Your task to perform on an android device: Open Amazon Image 0: 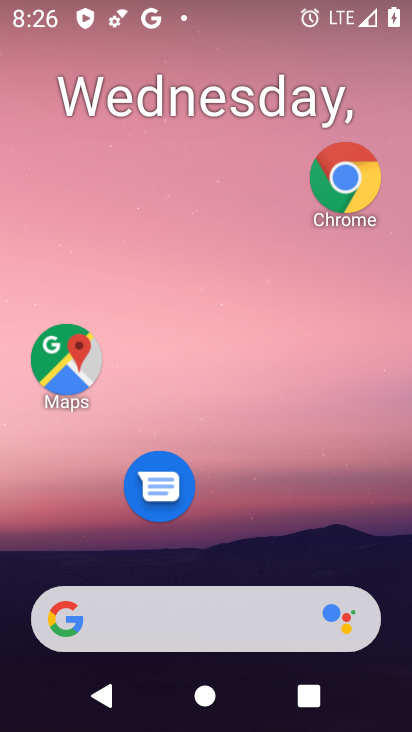
Step 0: drag from (185, 606) to (217, 99)
Your task to perform on an android device: Open Amazon Image 1: 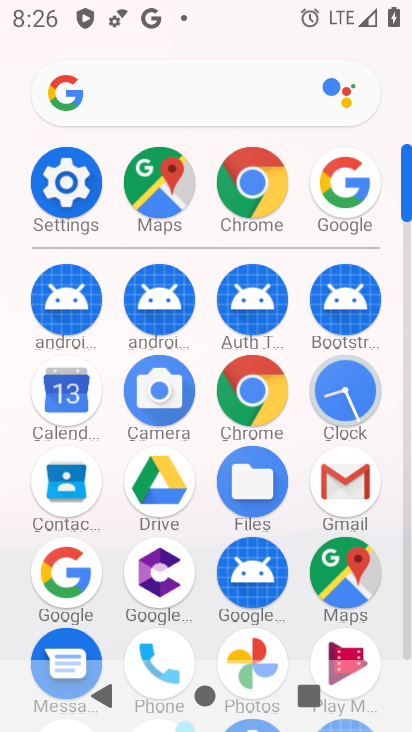
Step 1: drag from (255, 457) to (252, 282)
Your task to perform on an android device: Open Amazon Image 2: 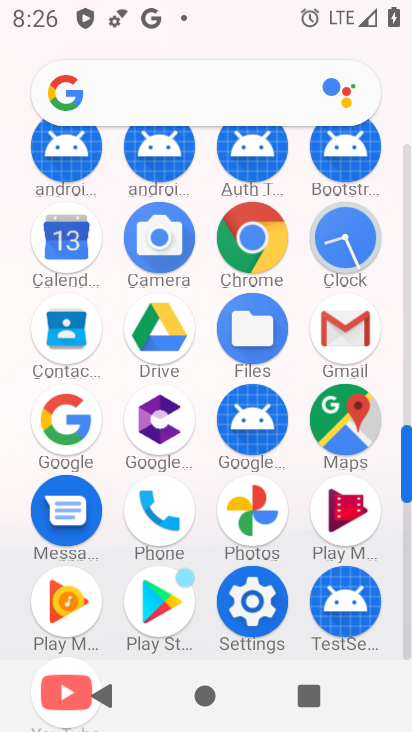
Step 2: drag from (210, 501) to (209, 406)
Your task to perform on an android device: Open Amazon Image 3: 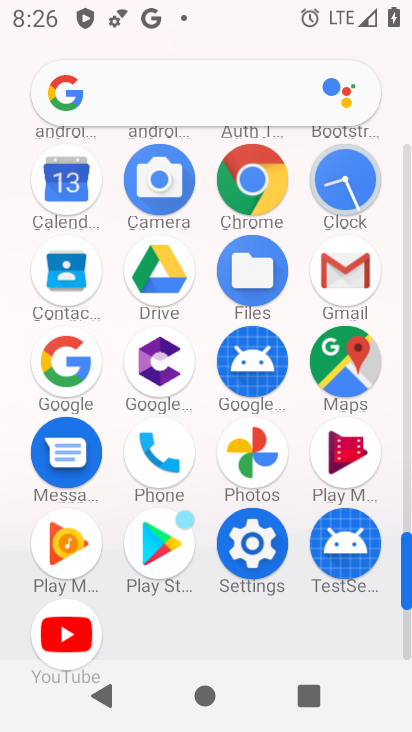
Step 3: click (254, 217)
Your task to perform on an android device: Open Amazon Image 4: 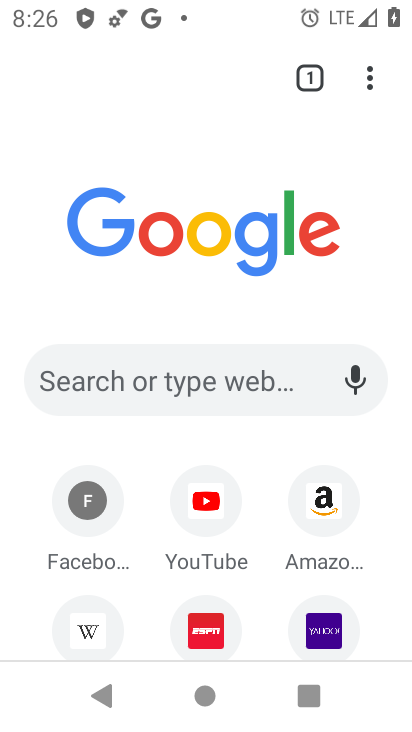
Step 4: click (323, 507)
Your task to perform on an android device: Open Amazon Image 5: 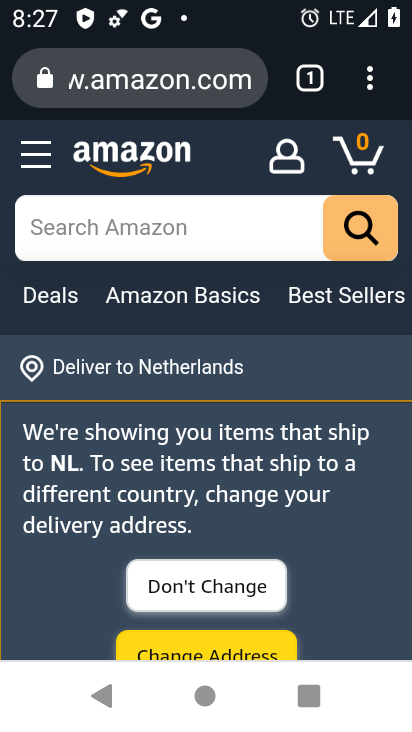
Step 5: task complete